Your task to perform on an android device: Open Android settings Image 0: 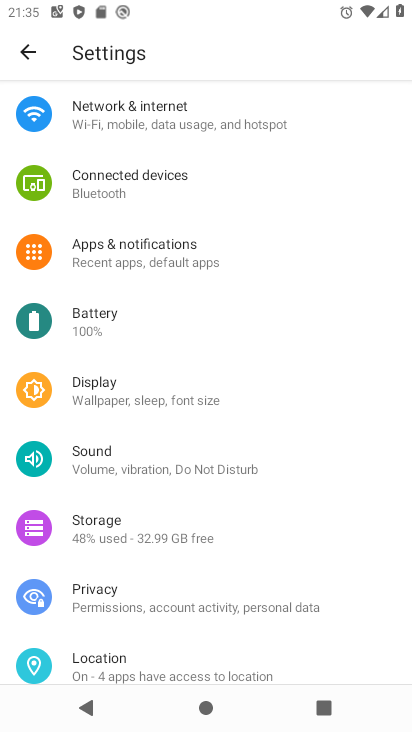
Step 0: task complete